Your task to perform on an android device: When is my next appointment? Image 0: 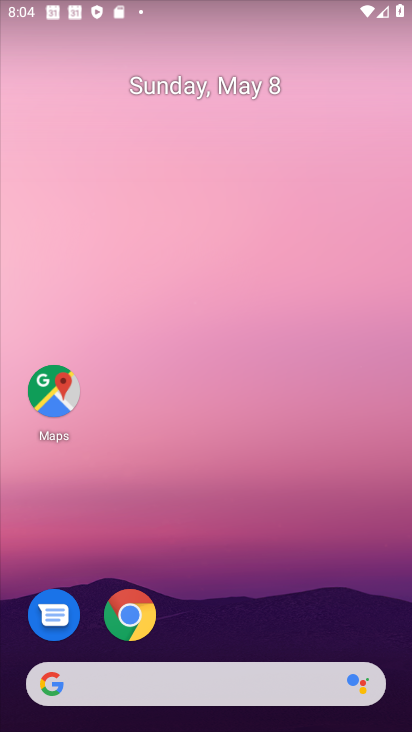
Step 0: click (247, 101)
Your task to perform on an android device: When is my next appointment? Image 1: 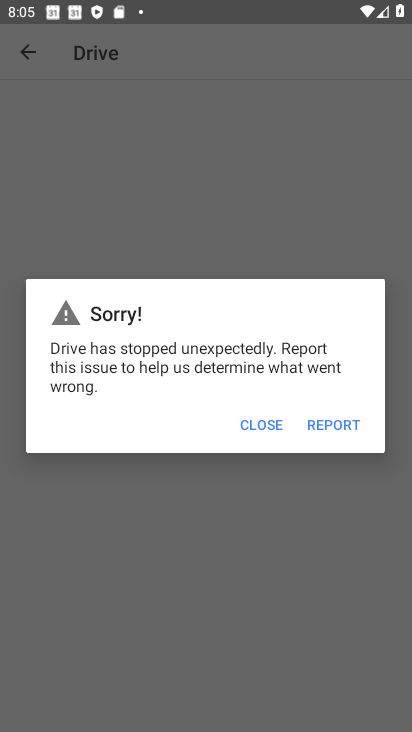
Step 1: press home button
Your task to perform on an android device: When is my next appointment? Image 2: 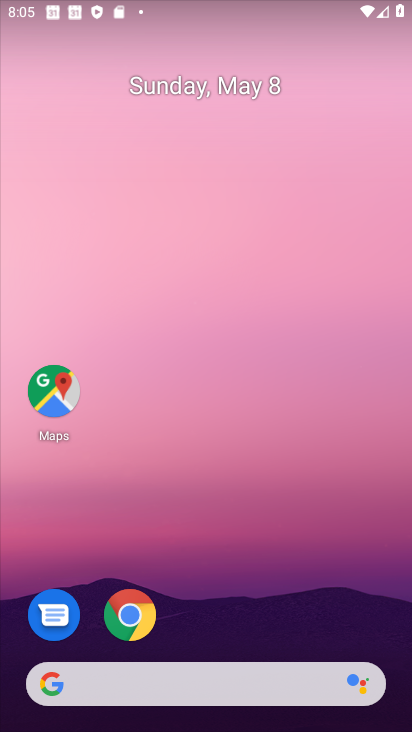
Step 2: drag from (281, 639) to (225, 159)
Your task to perform on an android device: When is my next appointment? Image 3: 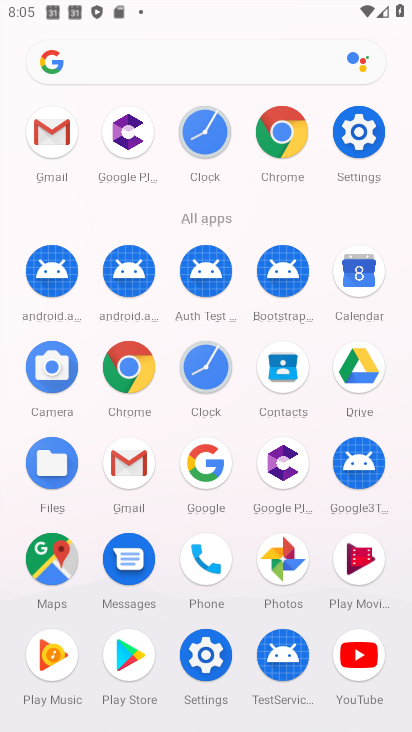
Step 3: click (367, 278)
Your task to perform on an android device: When is my next appointment? Image 4: 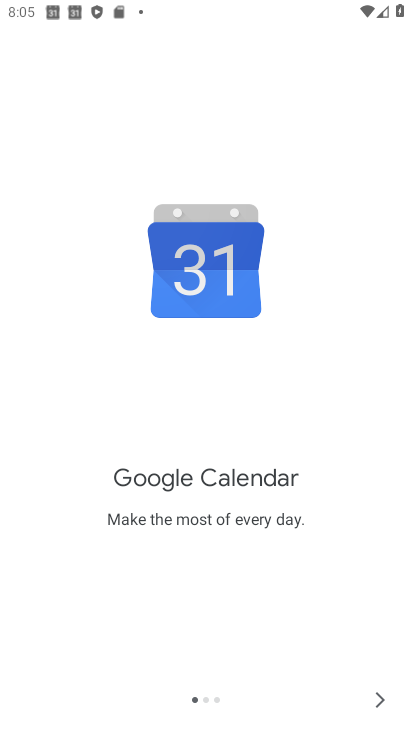
Step 4: click (378, 697)
Your task to perform on an android device: When is my next appointment? Image 5: 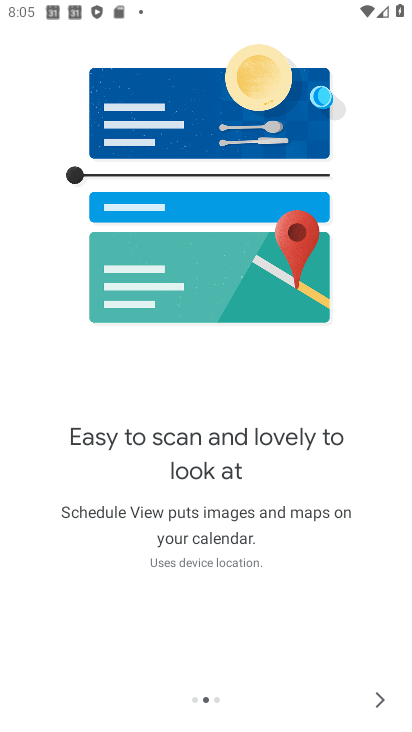
Step 5: click (379, 700)
Your task to perform on an android device: When is my next appointment? Image 6: 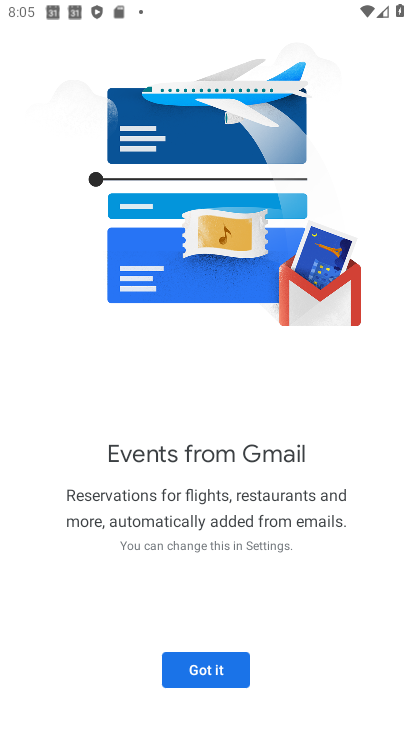
Step 6: click (379, 700)
Your task to perform on an android device: When is my next appointment? Image 7: 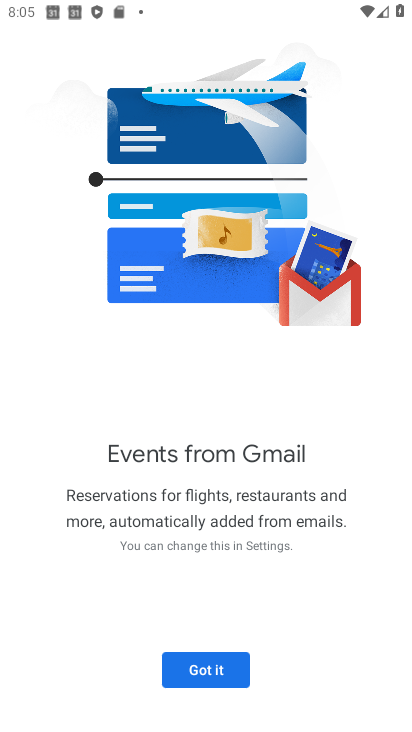
Step 7: click (197, 670)
Your task to perform on an android device: When is my next appointment? Image 8: 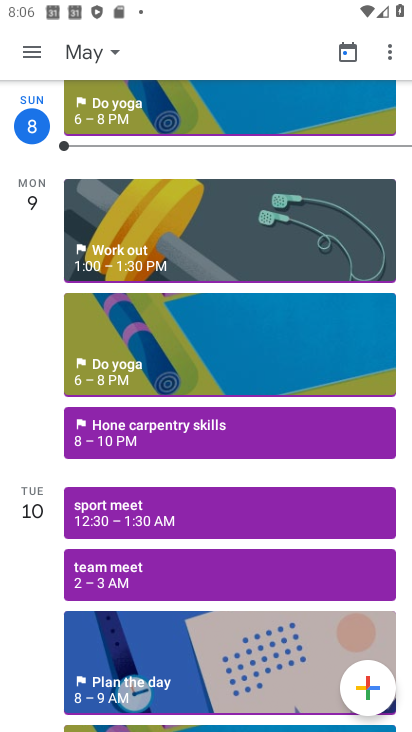
Step 8: task complete